Your task to perform on an android device: Search for seafood restaurants on Google Maps Image 0: 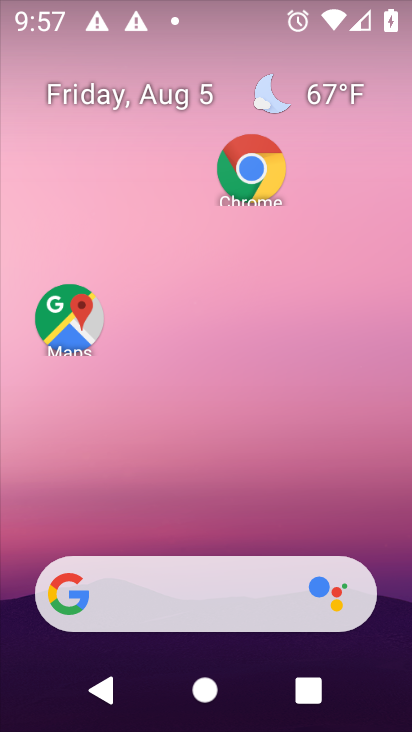
Step 0: click (71, 343)
Your task to perform on an android device: Search for seafood restaurants on Google Maps Image 1: 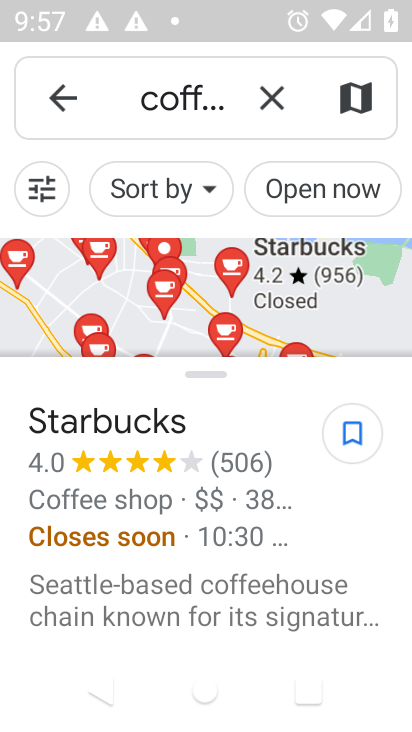
Step 1: click (257, 89)
Your task to perform on an android device: Search for seafood restaurants on Google Maps Image 2: 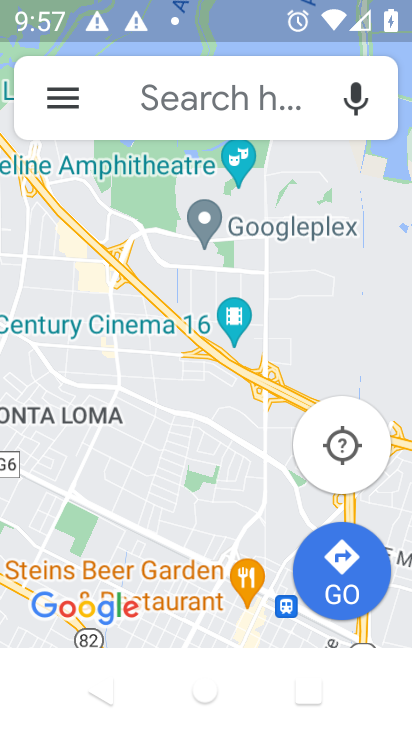
Step 2: type "seafood restaurants"
Your task to perform on an android device: Search for seafood restaurants on Google Maps Image 3: 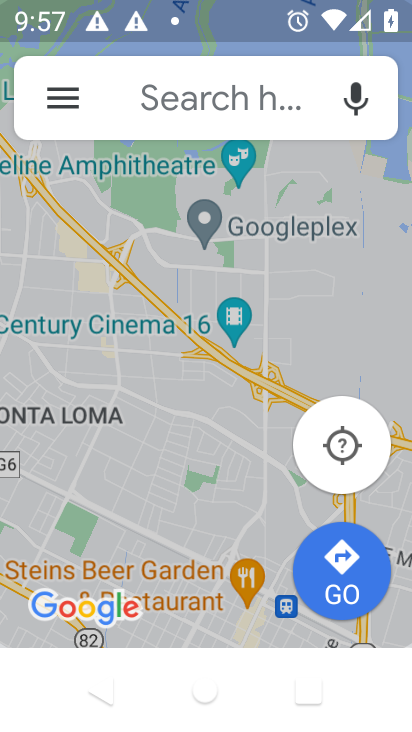
Step 3: type ""
Your task to perform on an android device: Search for seafood restaurants on Google Maps Image 4: 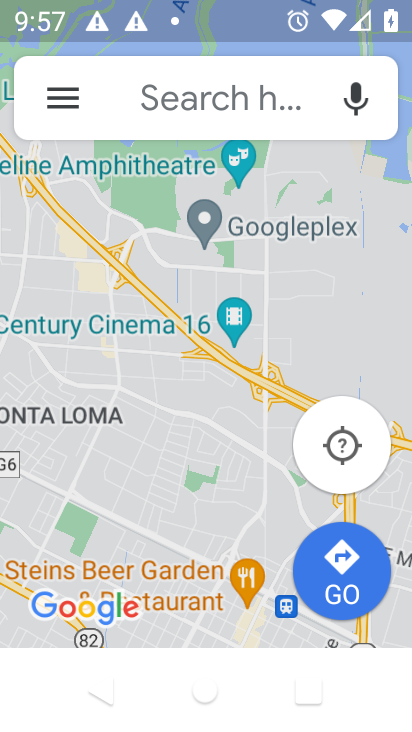
Step 4: click (180, 104)
Your task to perform on an android device: Search for seafood restaurants on Google Maps Image 5: 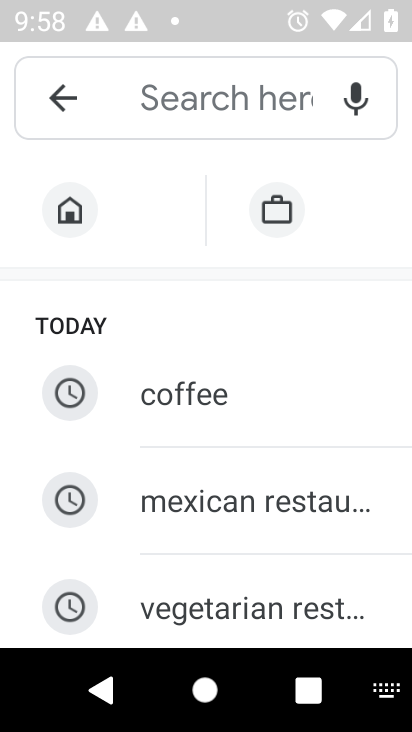
Step 5: type "seafood restaurants"
Your task to perform on an android device: Search for seafood restaurants on Google Maps Image 6: 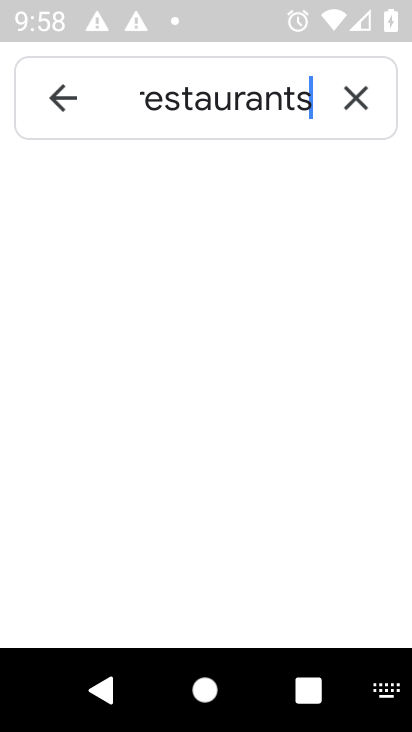
Step 6: type ""
Your task to perform on an android device: Search for seafood restaurants on Google Maps Image 7: 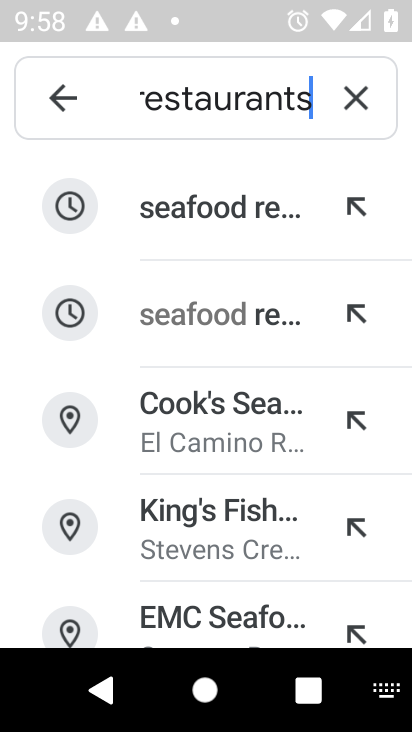
Step 7: click (208, 212)
Your task to perform on an android device: Search for seafood restaurants on Google Maps Image 8: 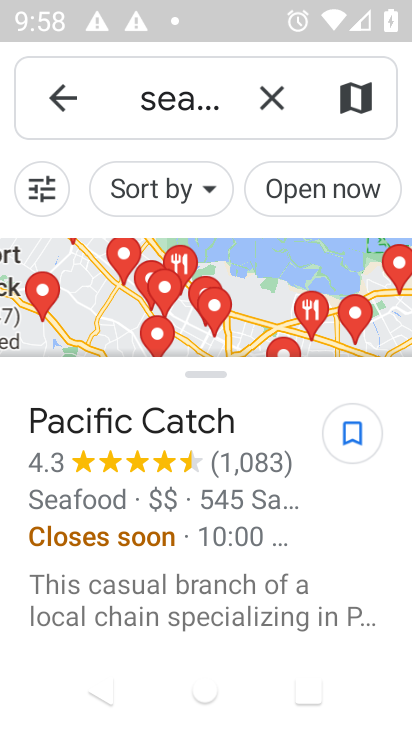
Step 8: task complete